Your task to perform on an android device: stop showing notifications on the lock screen Image 0: 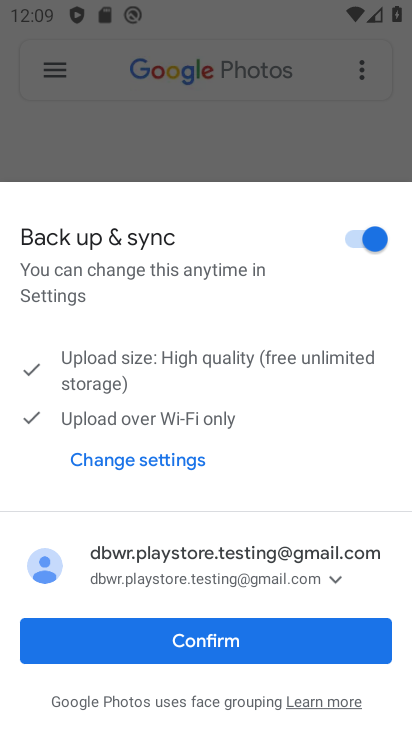
Step 0: press home button
Your task to perform on an android device: stop showing notifications on the lock screen Image 1: 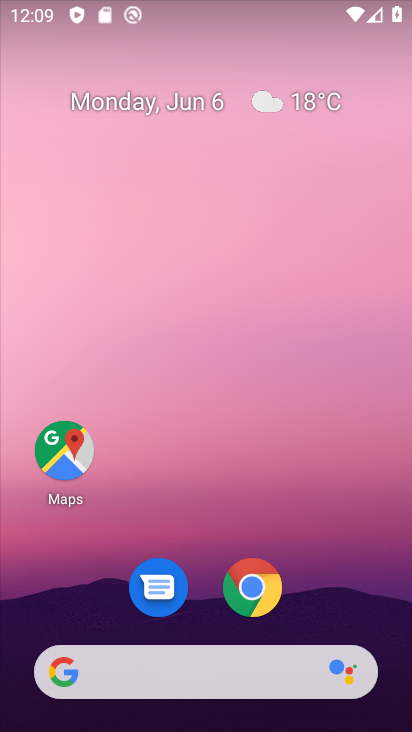
Step 1: drag from (349, 360) to (350, 172)
Your task to perform on an android device: stop showing notifications on the lock screen Image 2: 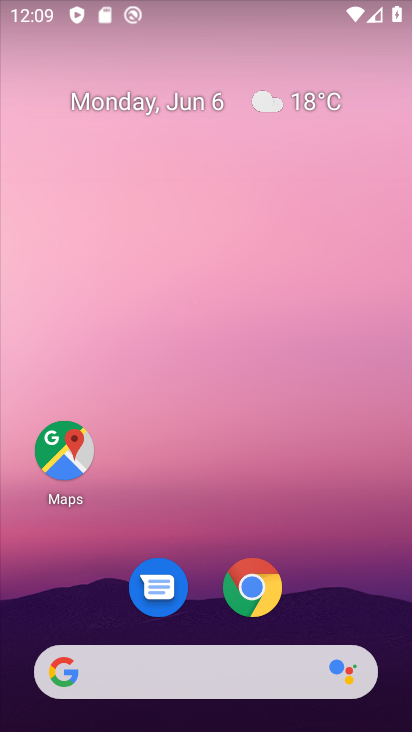
Step 2: drag from (365, 523) to (368, 138)
Your task to perform on an android device: stop showing notifications on the lock screen Image 3: 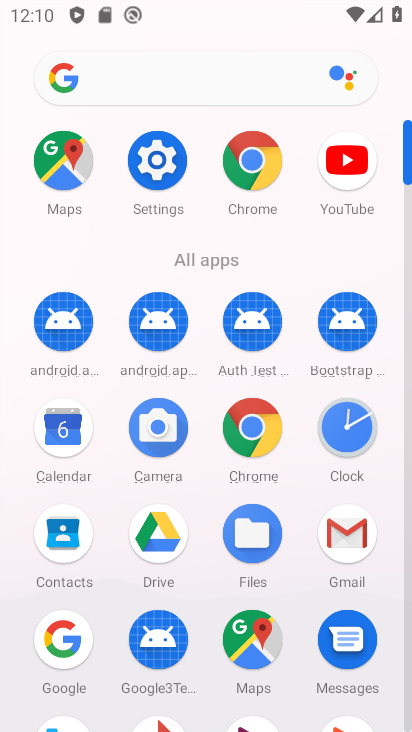
Step 3: click (148, 169)
Your task to perform on an android device: stop showing notifications on the lock screen Image 4: 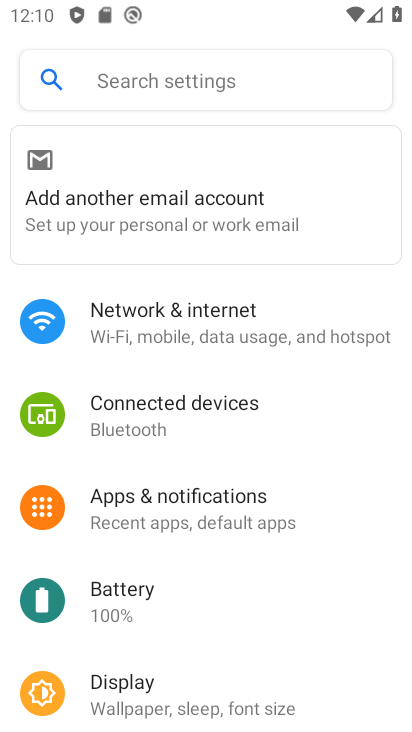
Step 4: drag from (296, 609) to (321, 298)
Your task to perform on an android device: stop showing notifications on the lock screen Image 5: 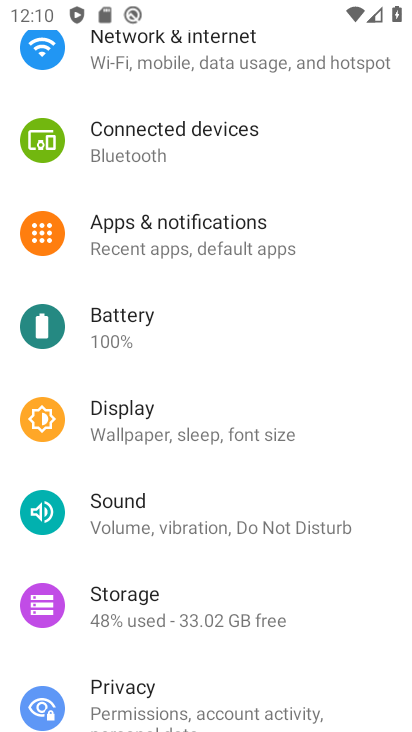
Step 5: click (217, 245)
Your task to perform on an android device: stop showing notifications on the lock screen Image 6: 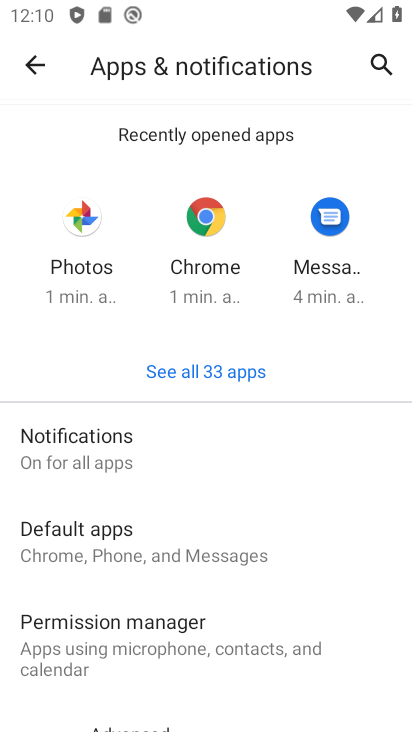
Step 6: click (108, 446)
Your task to perform on an android device: stop showing notifications on the lock screen Image 7: 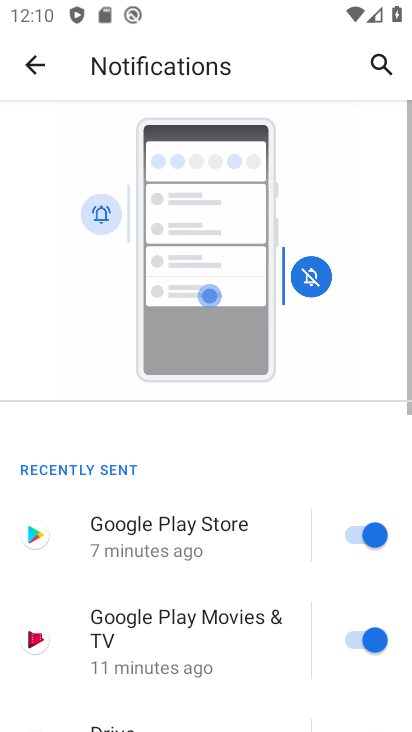
Step 7: drag from (254, 617) to (300, 265)
Your task to perform on an android device: stop showing notifications on the lock screen Image 8: 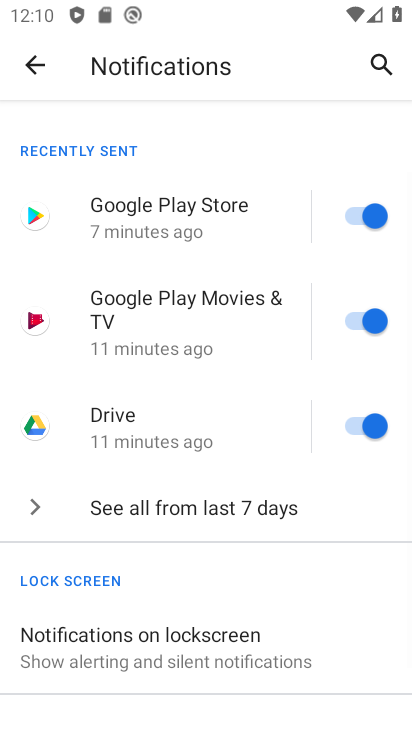
Step 8: click (237, 631)
Your task to perform on an android device: stop showing notifications on the lock screen Image 9: 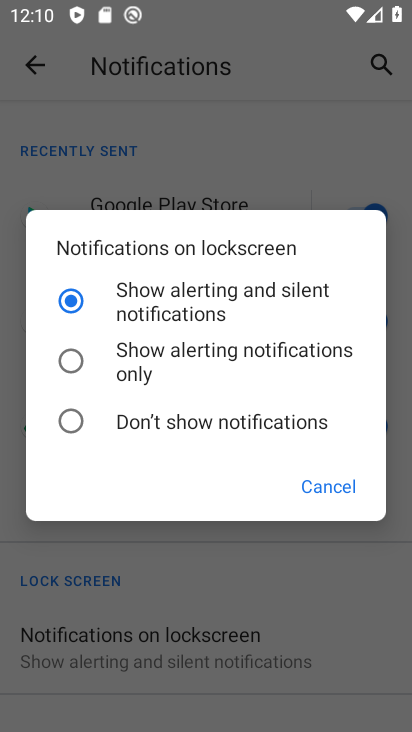
Step 9: click (75, 427)
Your task to perform on an android device: stop showing notifications on the lock screen Image 10: 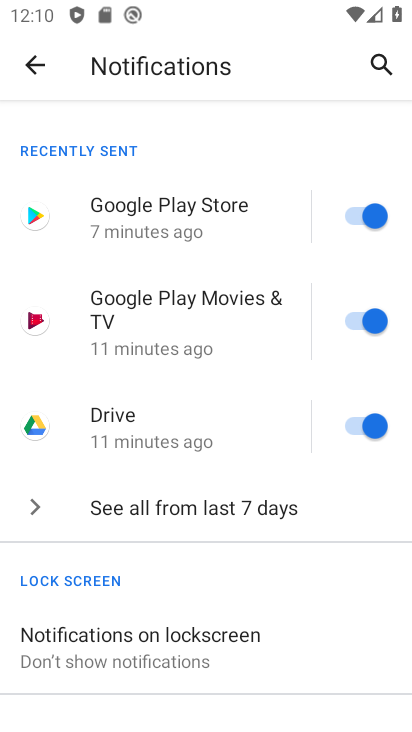
Step 10: task complete